Your task to perform on an android device: manage bookmarks in the chrome app Image 0: 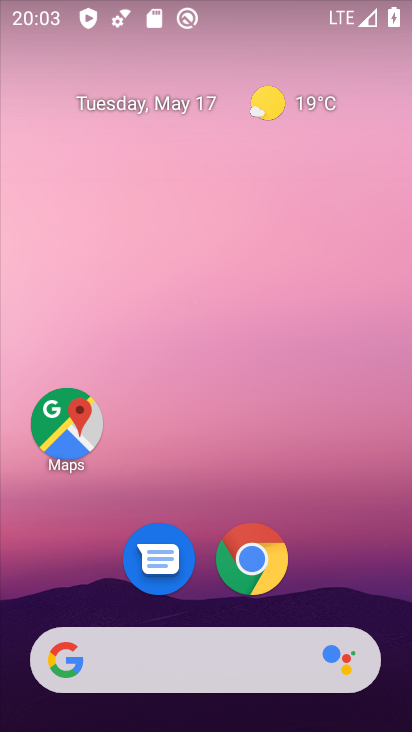
Step 0: click (251, 566)
Your task to perform on an android device: manage bookmarks in the chrome app Image 1: 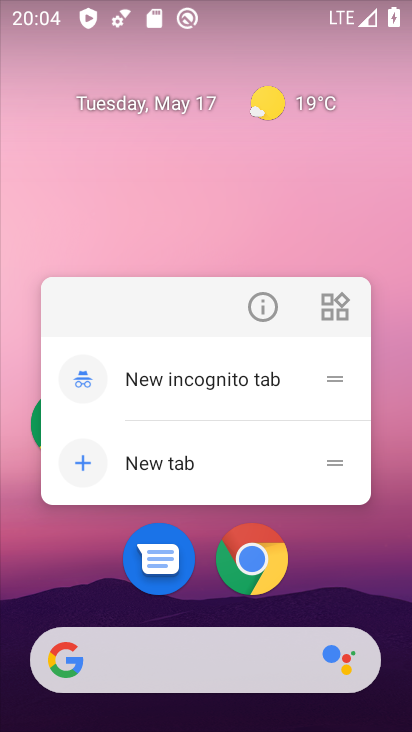
Step 1: click (254, 296)
Your task to perform on an android device: manage bookmarks in the chrome app Image 2: 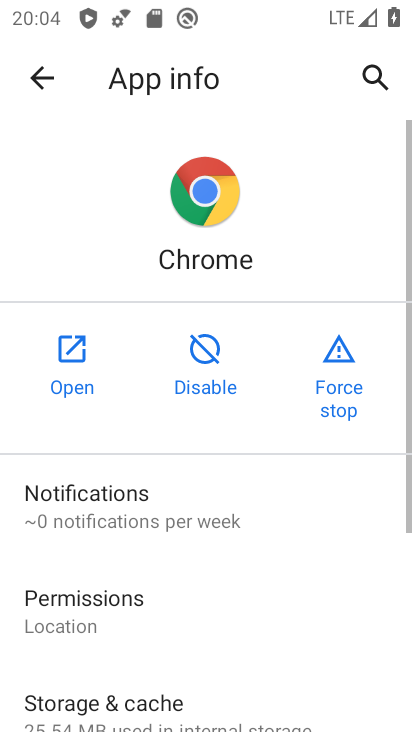
Step 2: click (88, 363)
Your task to perform on an android device: manage bookmarks in the chrome app Image 3: 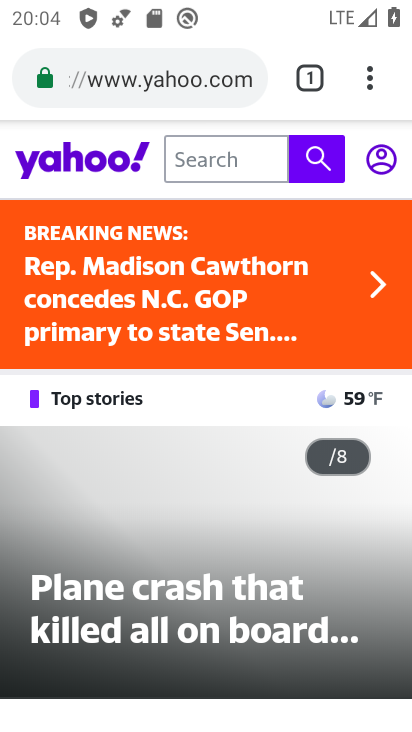
Step 3: click (361, 83)
Your task to perform on an android device: manage bookmarks in the chrome app Image 4: 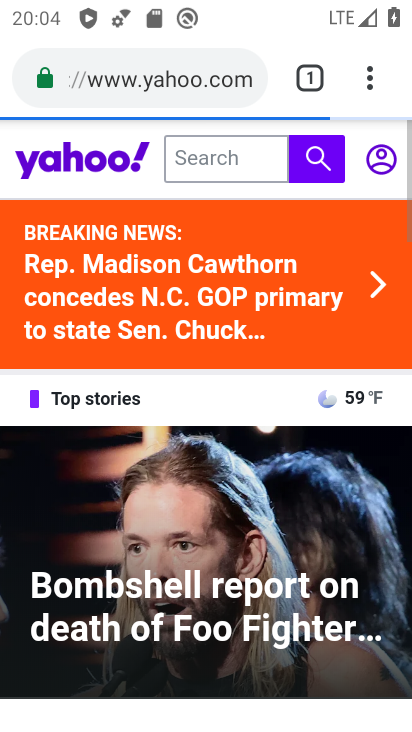
Step 4: click (372, 75)
Your task to perform on an android device: manage bookmarks in the chrome app Image 5: 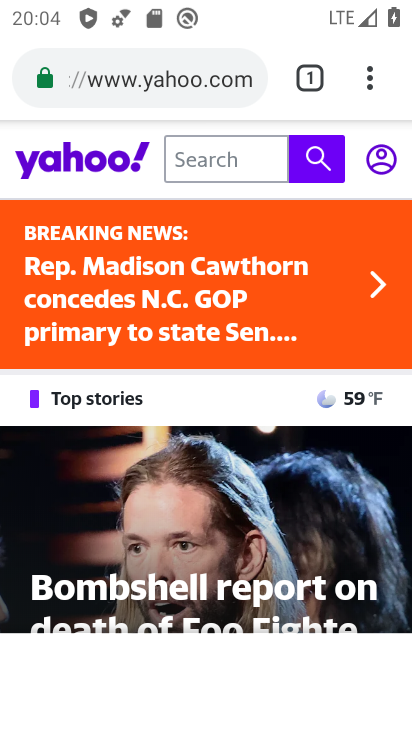
Step 5: click (372, 75)
Your task to perform on an android device: manage bookmarks in the chrome app Image 6: 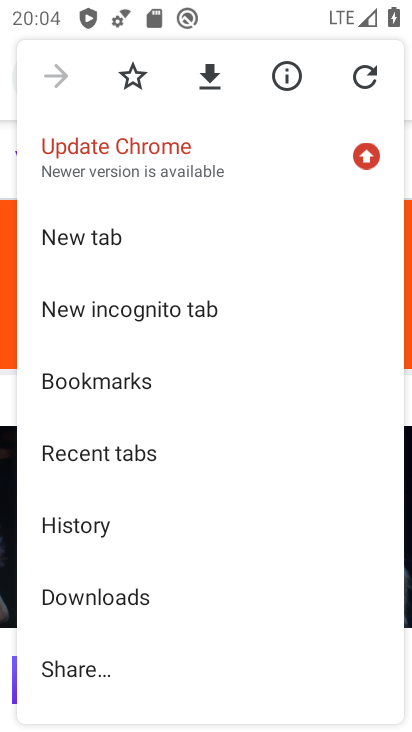
Step 6: click (88, 393)
Your task to perform on an android device: manage bookmarks in the chrome app Image 7: 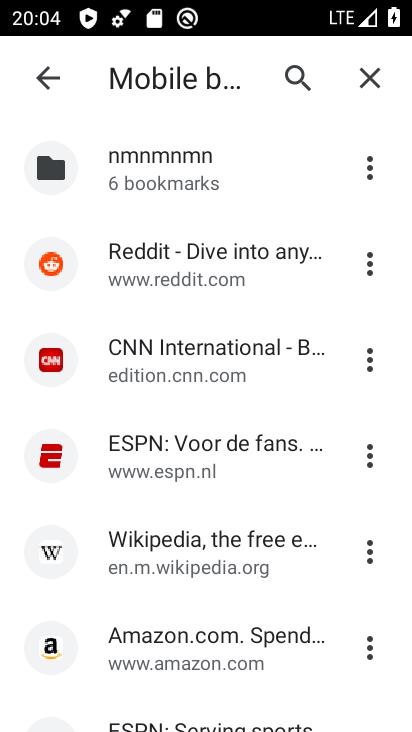
Step 7: drag from (183, 584) to (257, 167)
Your task to perform on an android device: manage bookmarks in the chrome app Image 8: 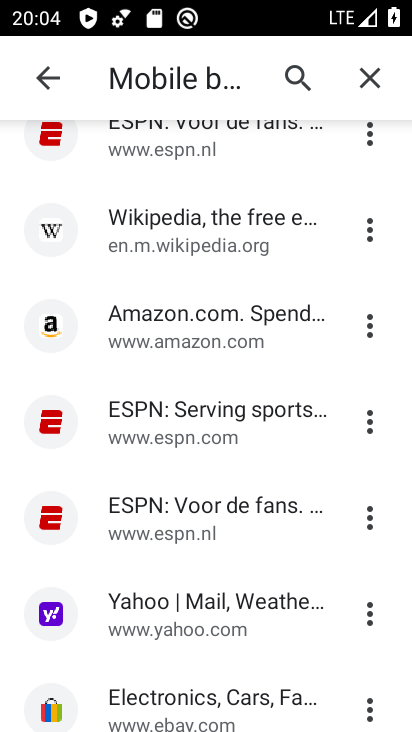
Step 8: drag from (191, 561) to (211, 247)
Your task to perform on an android device: manage bookmarks in the chrome app Image 9: 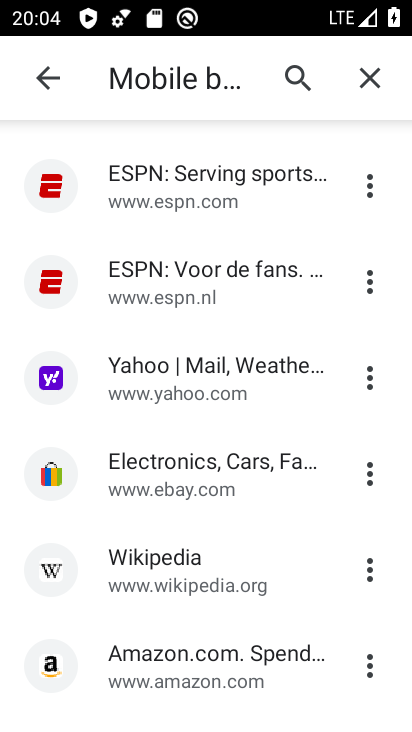
Step 9: click (374, 373)
Your task to perform on an android device: manage bookmarks in the chrome app Image 10: 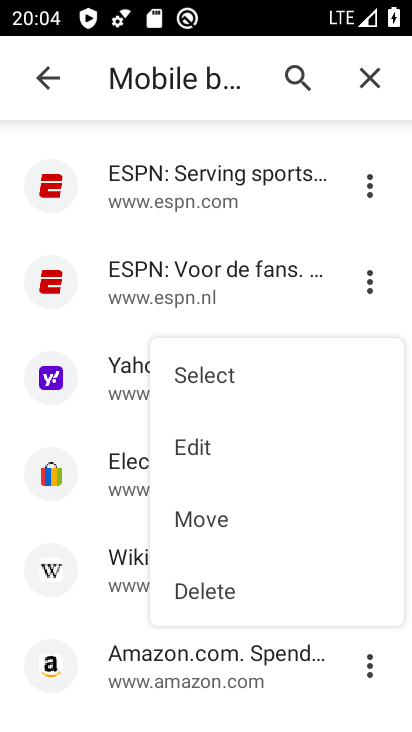
Step 10: click (188, 530)
Your task to perform on an android device: manage bookmarks in the chrome app Image 11: 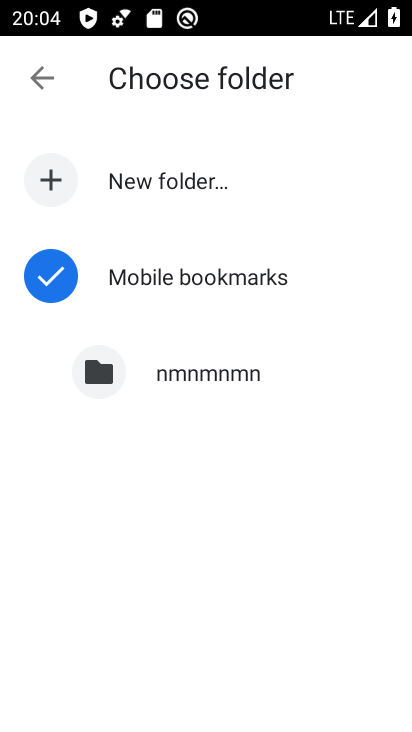
Step 11: drag from (233, 538) to (341, 159)
Your task to perform on an android device: manage bookmarks in the chrome app Image 12: 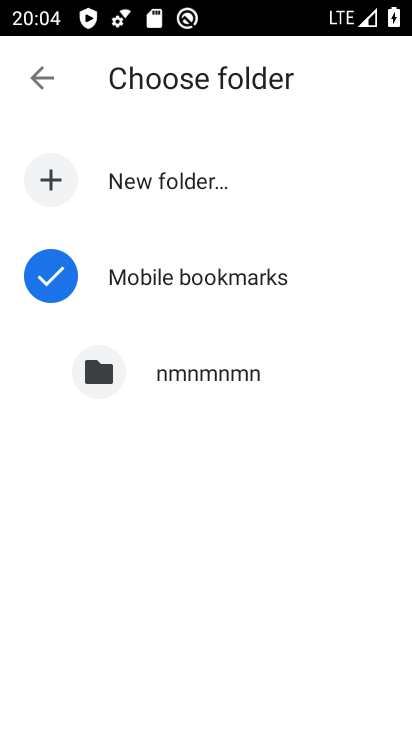
Step 12: click (188, 365)
Your task to perform on an android device: manage bookmarks in the chrome app Image 13: 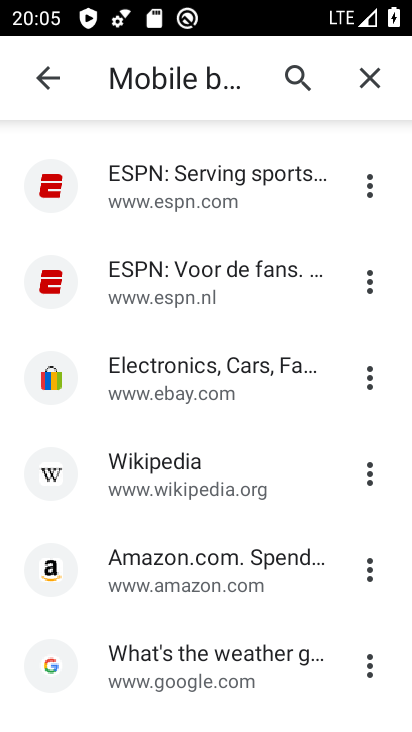
Step 13: task complete